Your task to perform on an android device: find snoozed emails in the gmail app Image 0: 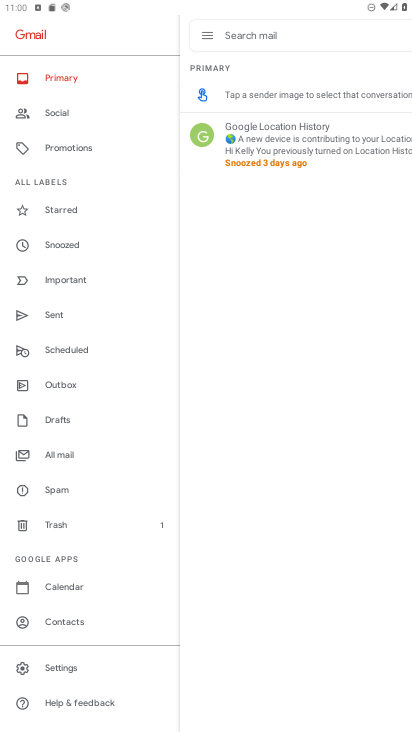
Step 0: click (77, 250)
Your task to perform on an android device: find snoozed emails in the gmail app Image 1: 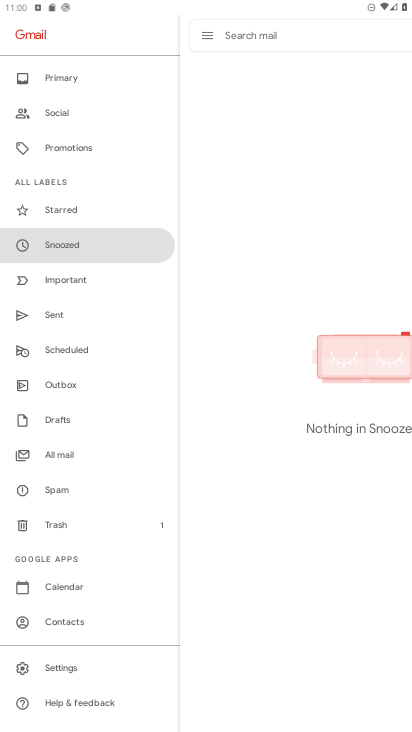
Step 1: task complete